Your task to perform on an android device: Turn off the flashlight Image 0: 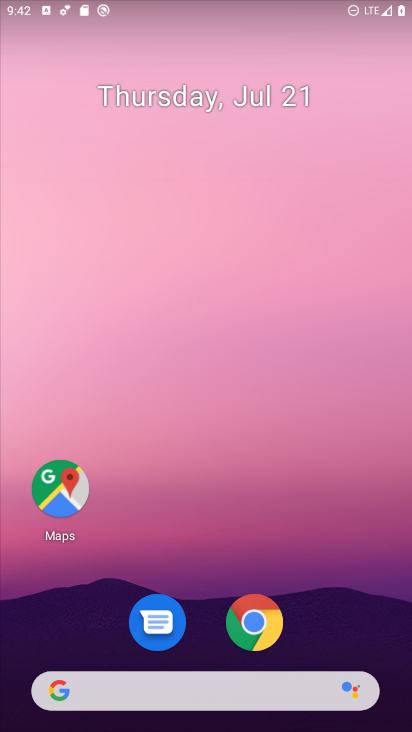
Step 0: drag from (304, 19) to (402, 722)
Your task to perform on an android device: Turn off the flashlight Image 1: 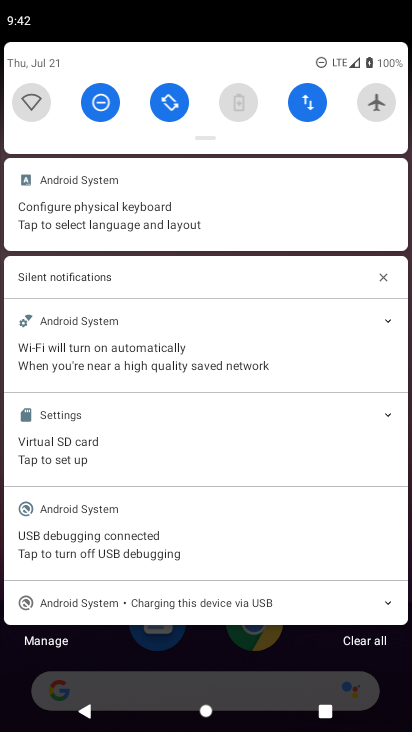
Step 1: task complete